Your task to perform on an android device: turn off notifications settings in the gmail app Image 0: 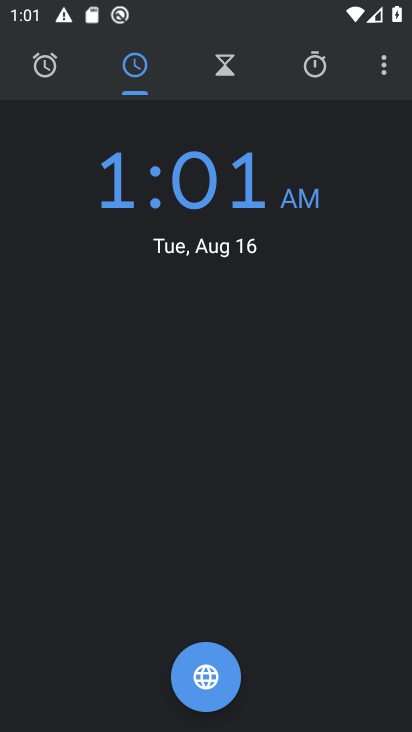
Step 0: press home button
Your task to perform on an android device: turn off notifications settings in the gmail app Image 1: 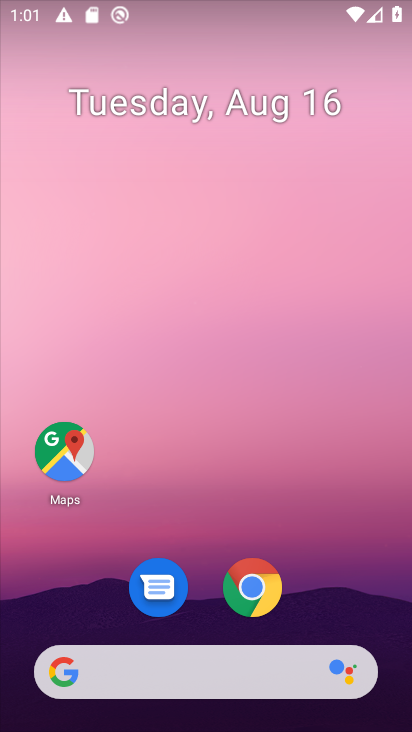
Step 1: drag from (206, 652) to (206, 236)
Your task to perform on an android device: turn off notifications settings in the gmail app Image 2: 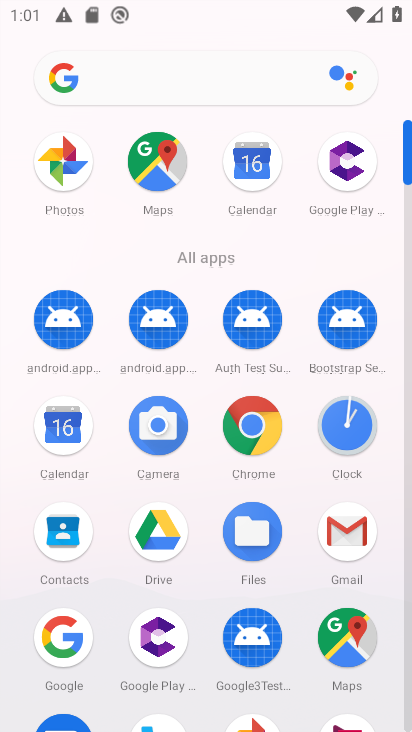
Step 2: click (333, 536)
Your task to perform on an android device: turn off notifications settings in the gmail app Image 3: 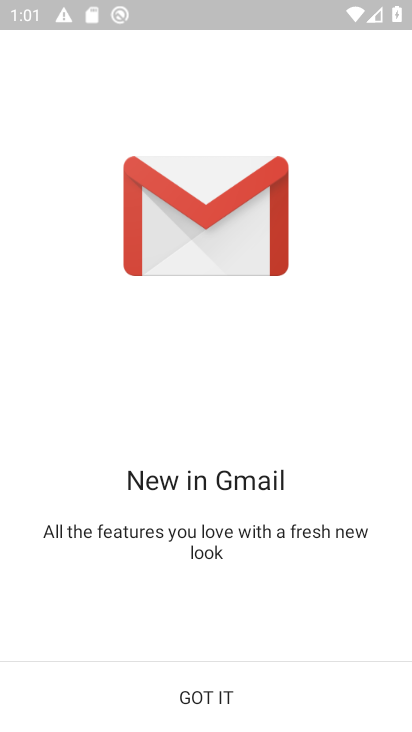
Step 3: click (205, 698)
Your task to perform on an android device: turn off notifications settings in the gmail app Image 4: 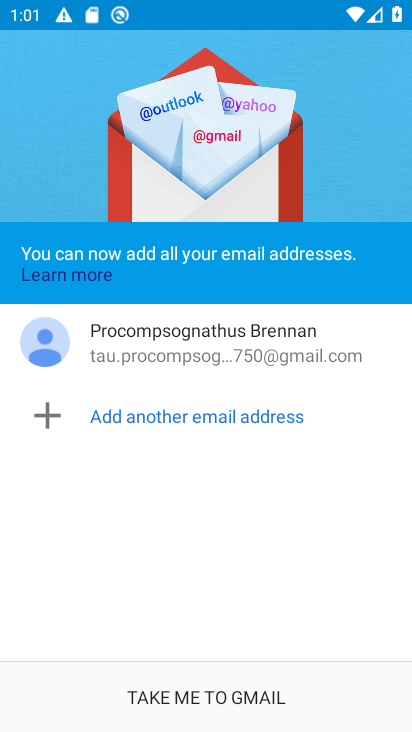
Step 4: drag from (205, 698) to (265, 699)
Your task to perform on an android device: turn off notifications settings in the gmail app Image 5: 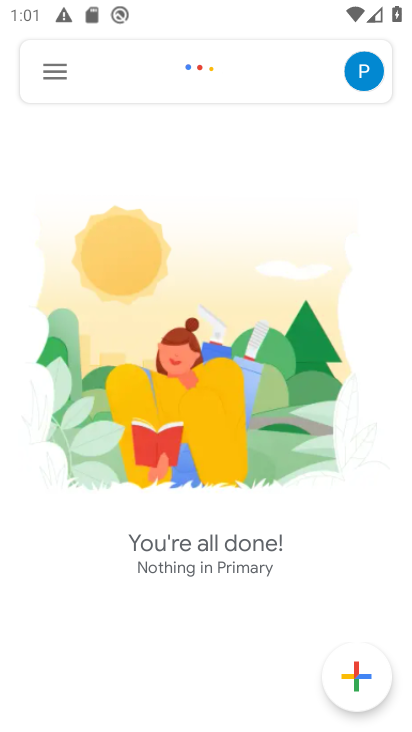
Step 5: click (373, 71)
Your task to perform on an android device: turn off notifications settings in the gmail app Image 6: 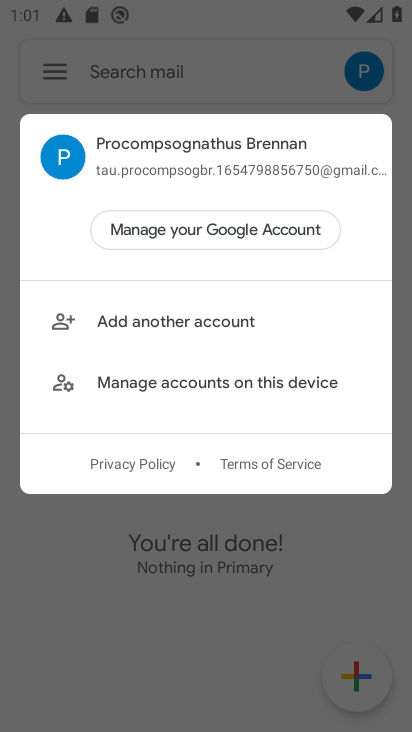
Step 6: click (83, 544)
Your task to perform on an android device: turn off notifications settings in the gmail app Image 7: 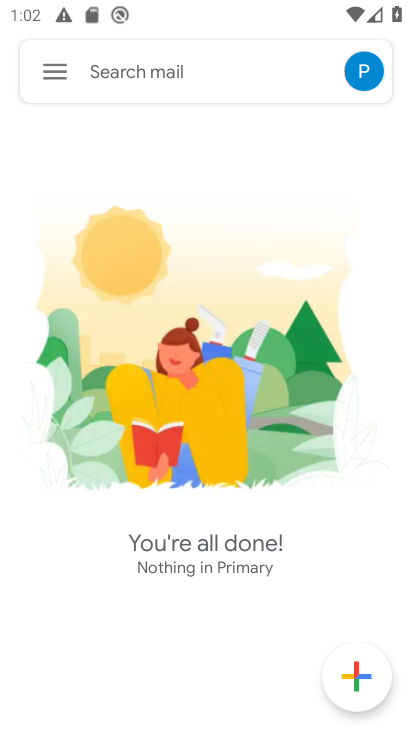
Step 7: click (46, 72)
Your task to perform on an android device: turn off notifications settings in the gmail app Image 8: 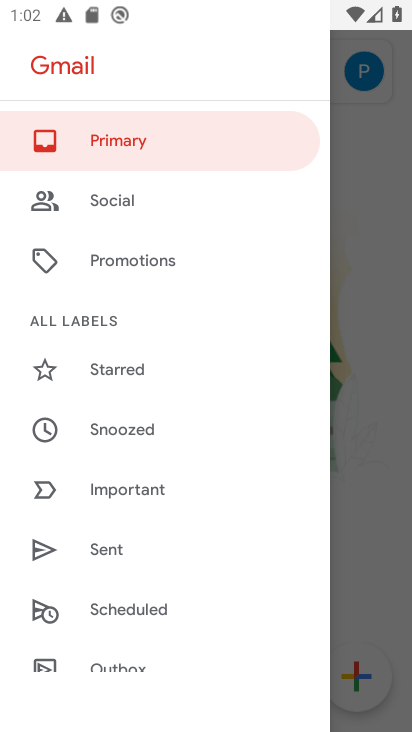
Step 8: drag from (98, 643) to (148, 237)
Your task to perform on an android device: turn off notifications settings in the gmail app Image 9: 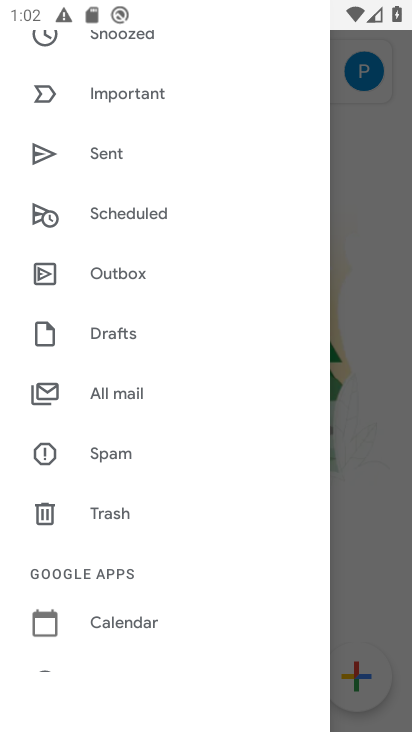
Step 9: drag from (115, 658) to (114, 243)
Your task to perform on an android device: turn off notifications settings in the gmail app Image 10: 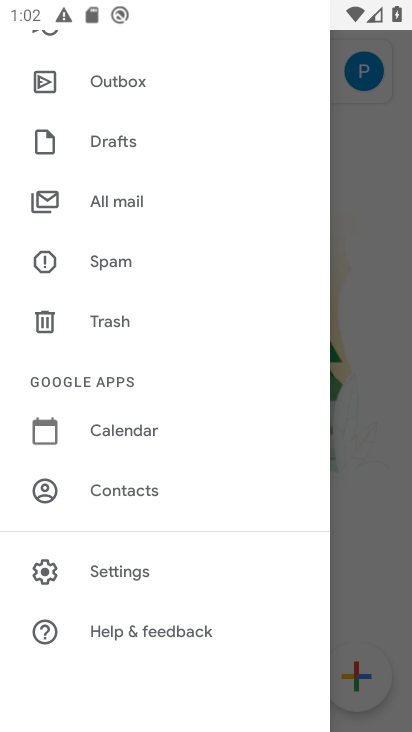
Step 10: click (98, 573)
Your task to perform on an android device: turn off notifications settings in the gmail app Image 11: 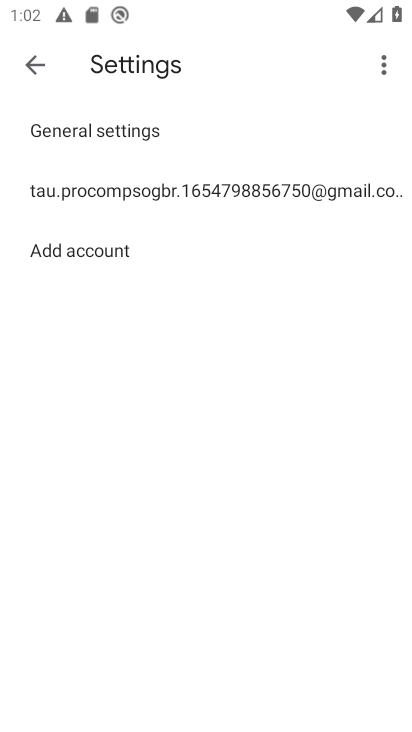
Step 11: click (94, 185)
Your task to perform on an android device: turn off notifications settings in the gmail app Image 12: 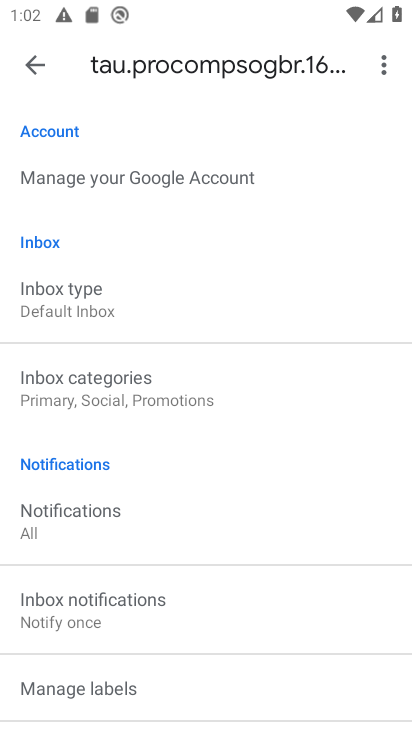
Step 12: drag from (73, 633) to (89, 360)
Your task to perform on an android device: turn off notifications settings in the gmail app Image 13: 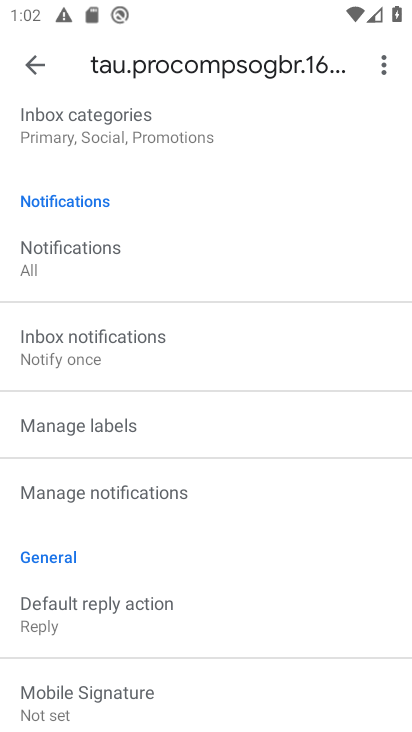
Step 13: click (66, 500)
Your task to perform on an android device: turn off notifications settings in the gmail app Image 14: 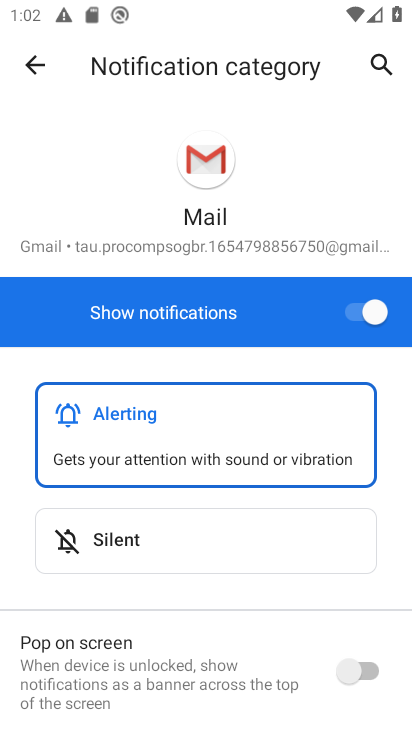
Step 14: click (358, 312)
Your task to perform on an android device: turn off notifications settings in the gmail app Image 15: 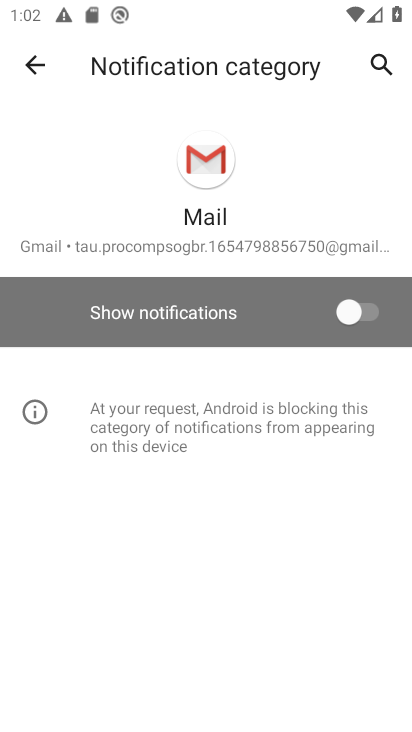
Step 15: task complete